Your task to perform on an android device: check android version Image 0: 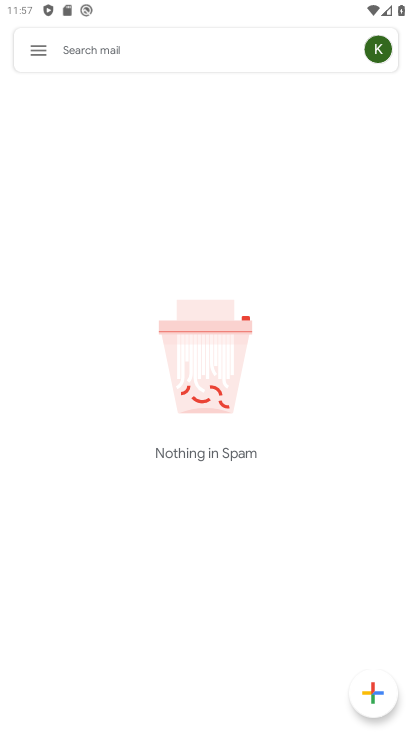
Step 0: press home button
Your task to perform on an android device: check android version Image 1: 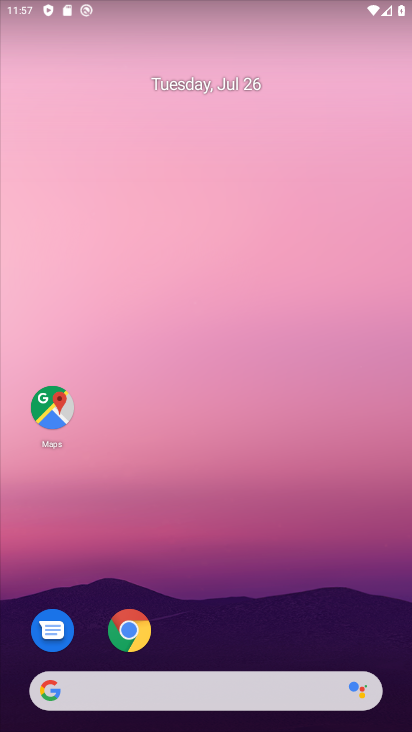
Step 1: drag from (250, 600) to (243, 140)
Your task to perform on an android device: check android version Image 2: 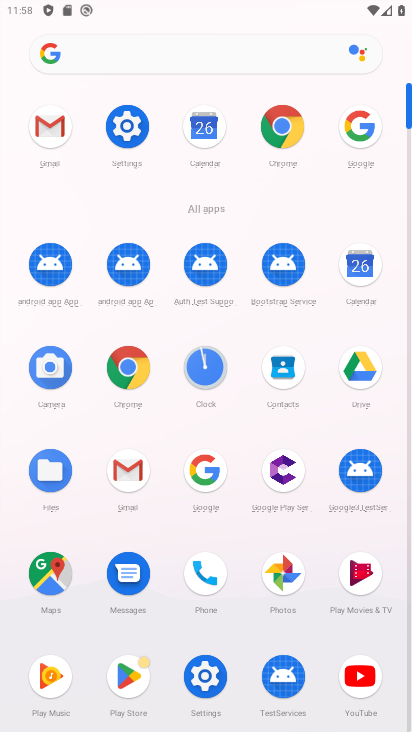
Step 2: click (208, 673)
Your task to perform on an android device: check android version Image 3: 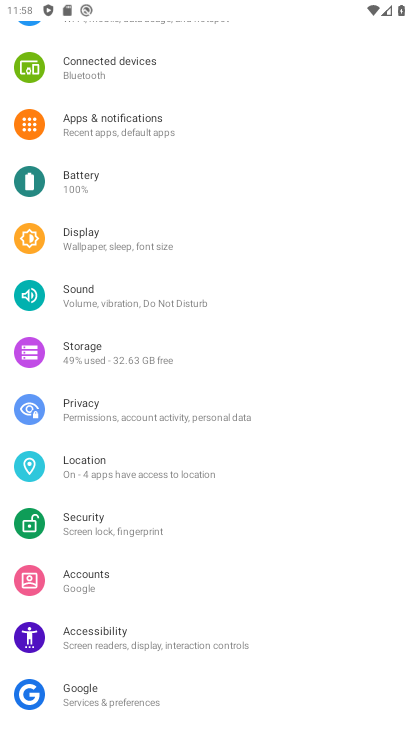
Step 3: drag from (118, 702) to (106, 380)
Your task to perform on an android device: check android version Image 4: 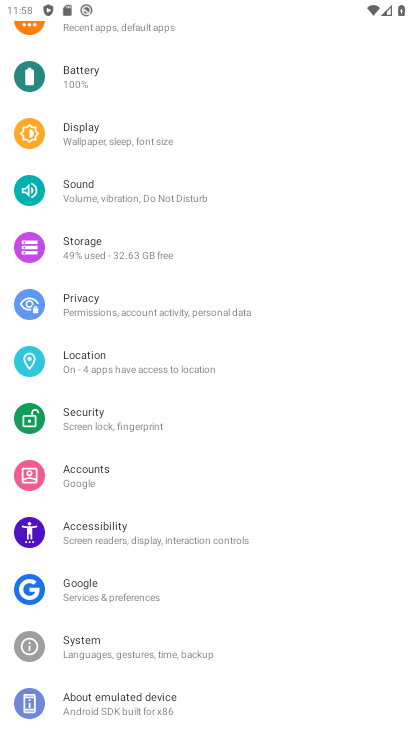
Step 4: click (100, 694)
Your task to perform on an android device: check android version Image 5: 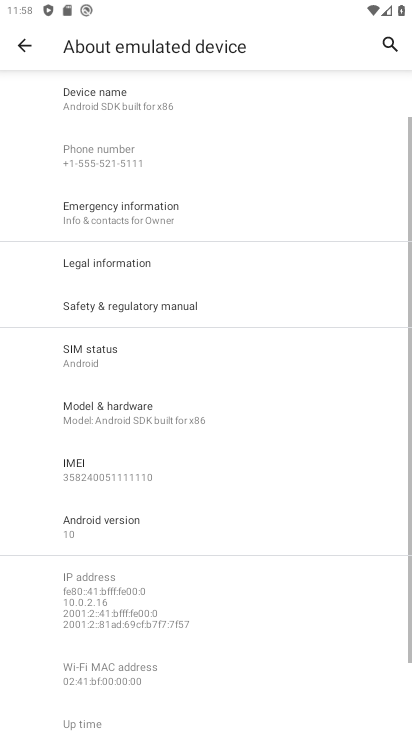
Step 5: click (203, 535)
Your task to perform on an android device: check android version Image 6: 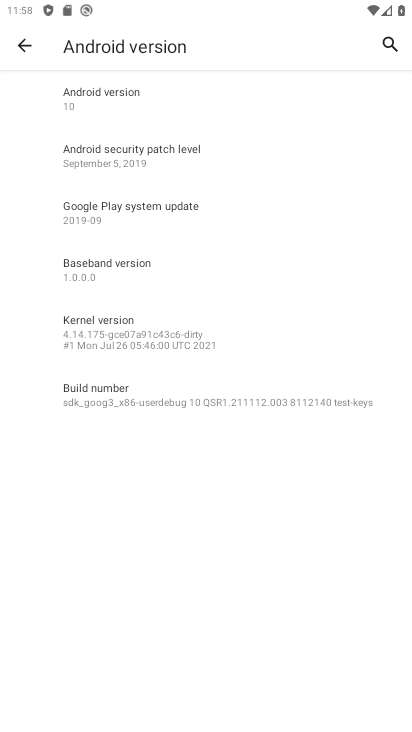
Step 6: click (72, 96)
Your task to perform on an android device: check android version Image 7: 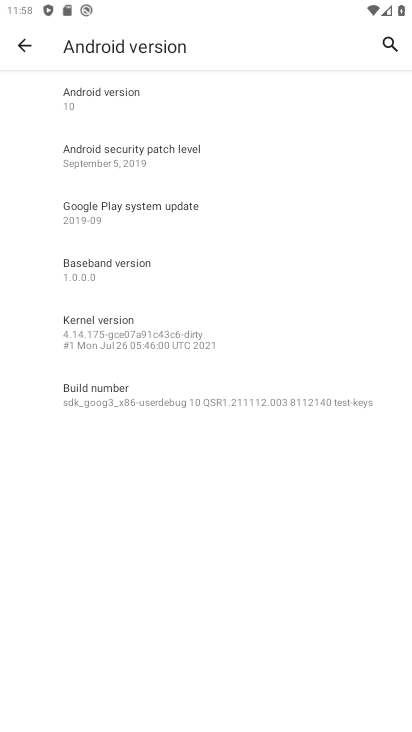
Step 7: task complete